Your task to perform on an android device: Play the last video I watched on Youtube Image 0: 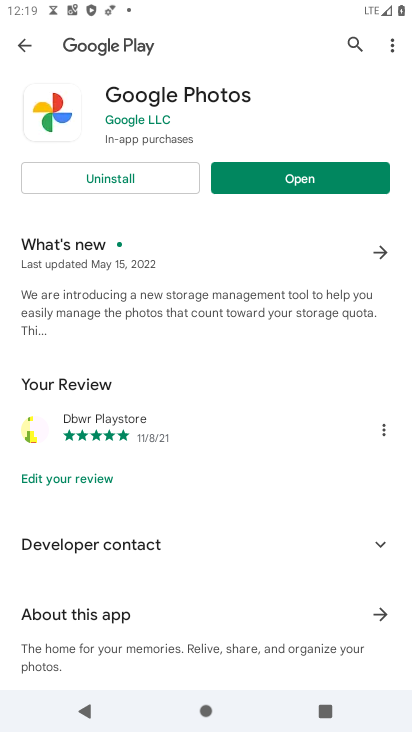
Step 0: press home button
Your task to perform on an android device: Play the last video I watched on Youtube Image 1: 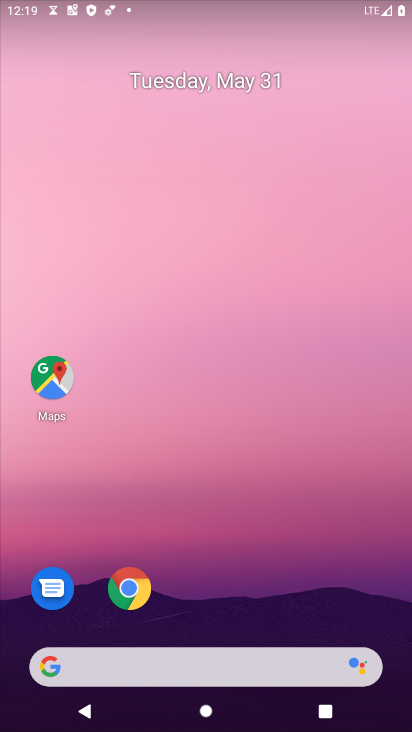
Step 1: drag from (191, 611) to (272, 87)
Your task to perform on an android device: Play the last video I watched on Youtube Image 2: 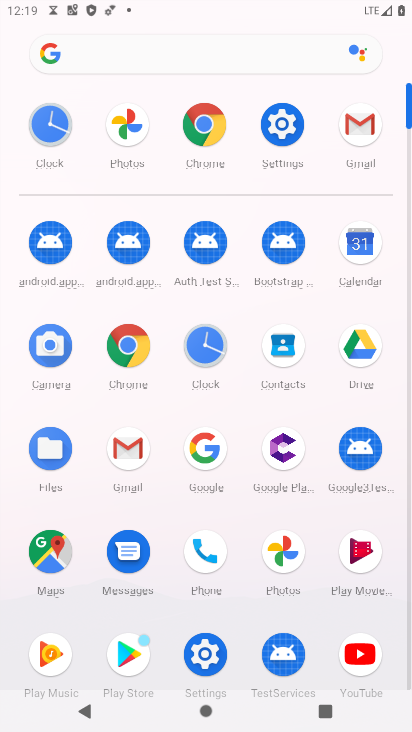
Step 2: click (357, 651)
Your task to perform on an android device: Play the last video I watched on Youtube Image 3: 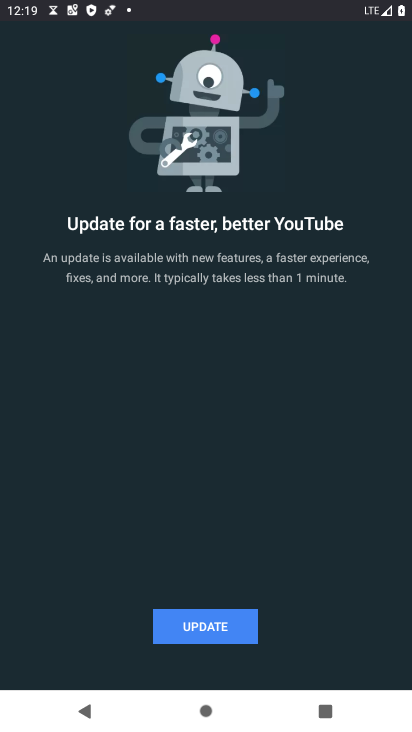
Step 3: click (193, 622)
Your task to perform on an android device: Play the last video I watched on Youtube Image 4: 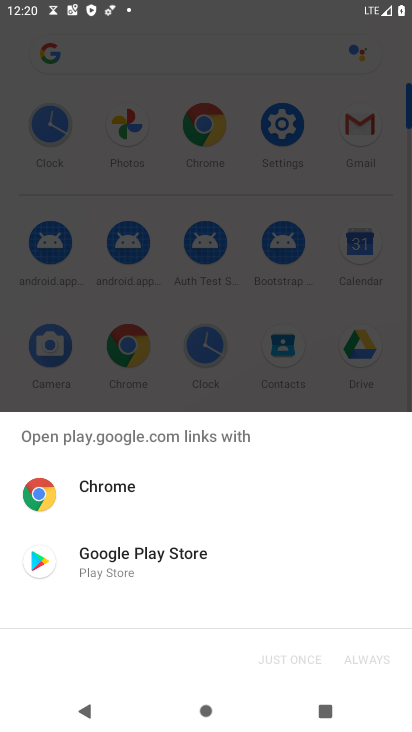
Step 4: click (139, 552)
Your task to perform on an android device: Play the last video I watched on Youtube Image 5: 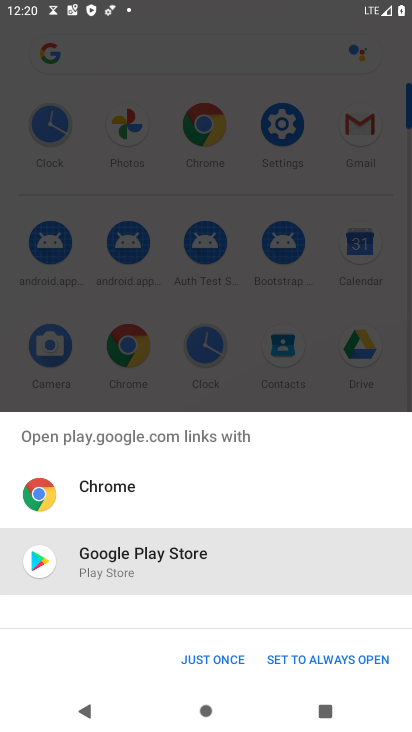
Step 5: click (215, 663)
Your task to perform on an android device: Play the last video I watched on Youtube Image 6: 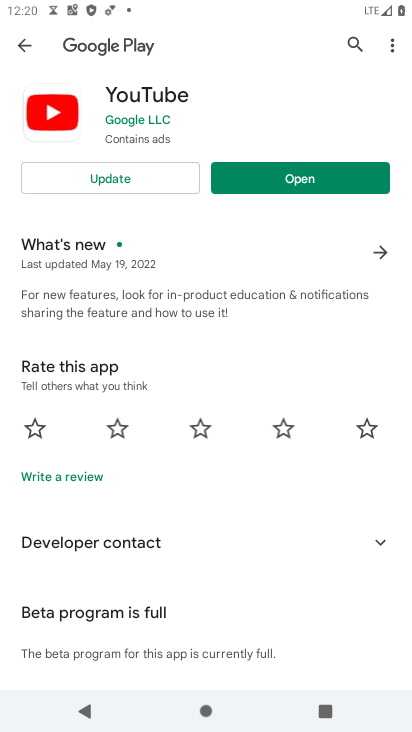
Step 6: click (106, 175)
Your task to perform on an android device: Play the last video I watched on Youtube Image 7: 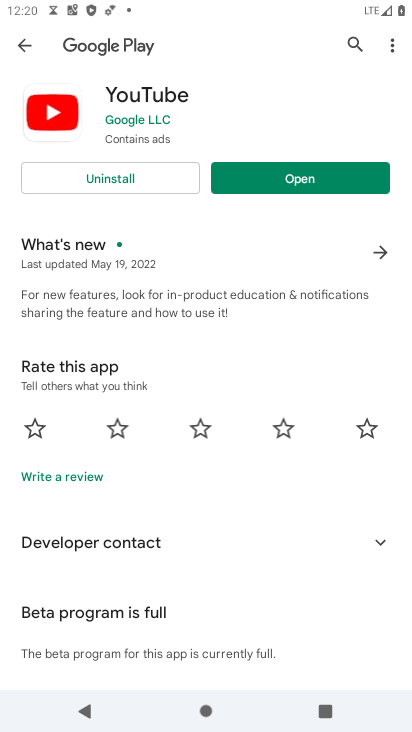
Step 7: click (319, 174)
Your task to perform on an android device: Play the last video I watched on Youtube Image 8: 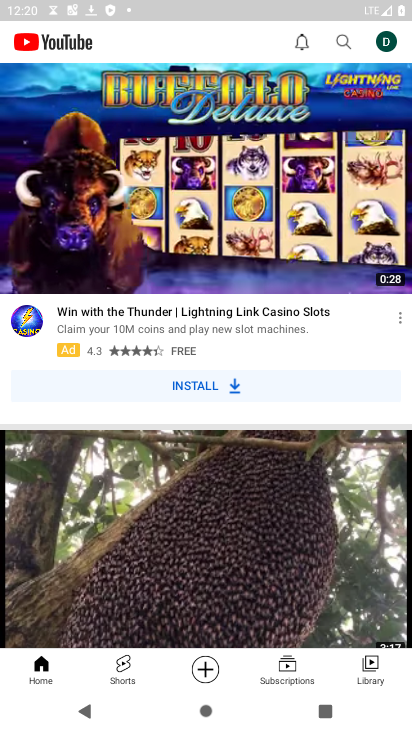
Step 8: click (369, 670)
Your task to perform on an android device: Play the last video I watched on Youtube Image 9: 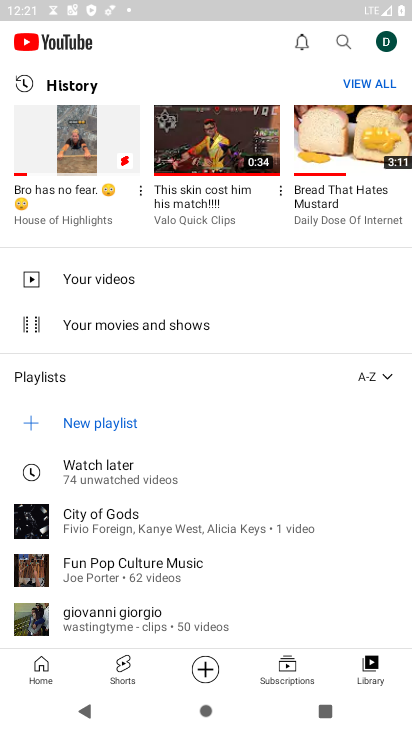
Step 9: click (88, 149)
Your task to perform on an android device: Play the last video I watched on Youtube Image 10: 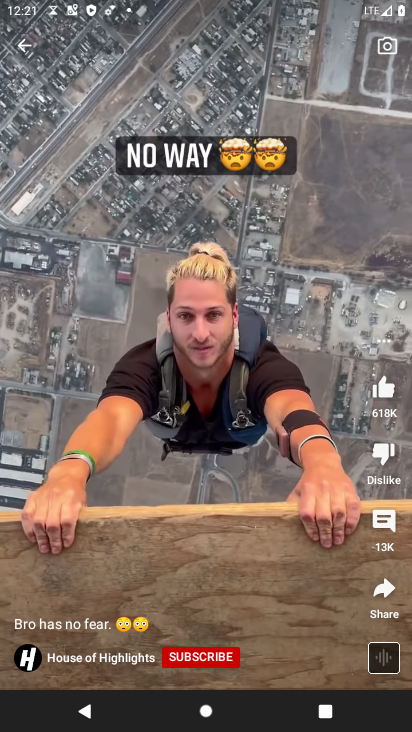
Step 10: task complete